Your task to perform on an android device: Show me popular games on the Play Store Image 0: 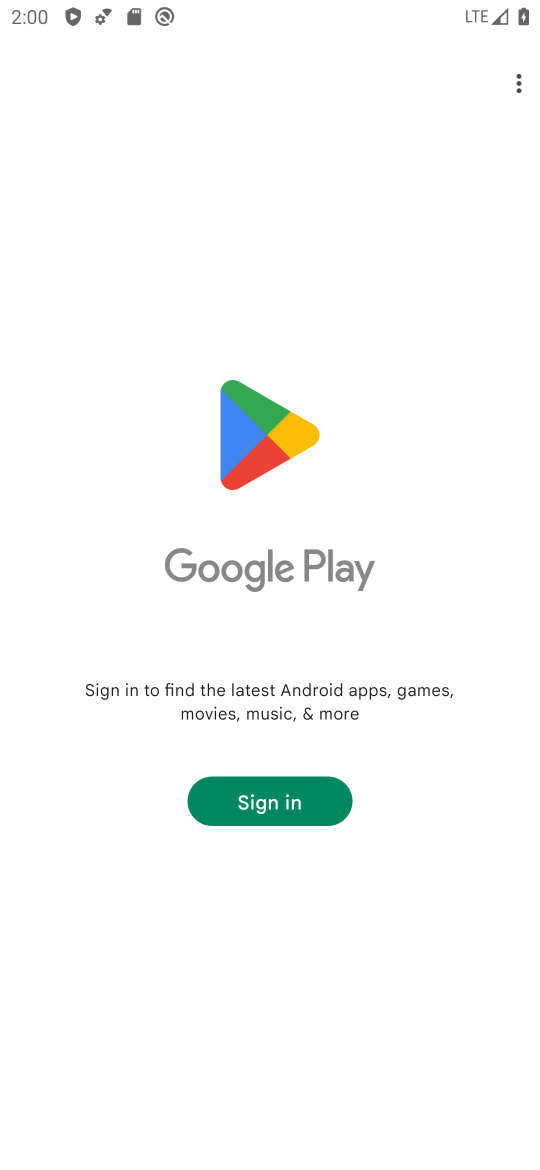
Step 0: press home button
Your task to perform on an android device: Show me popular games on the Play Store Image 1: 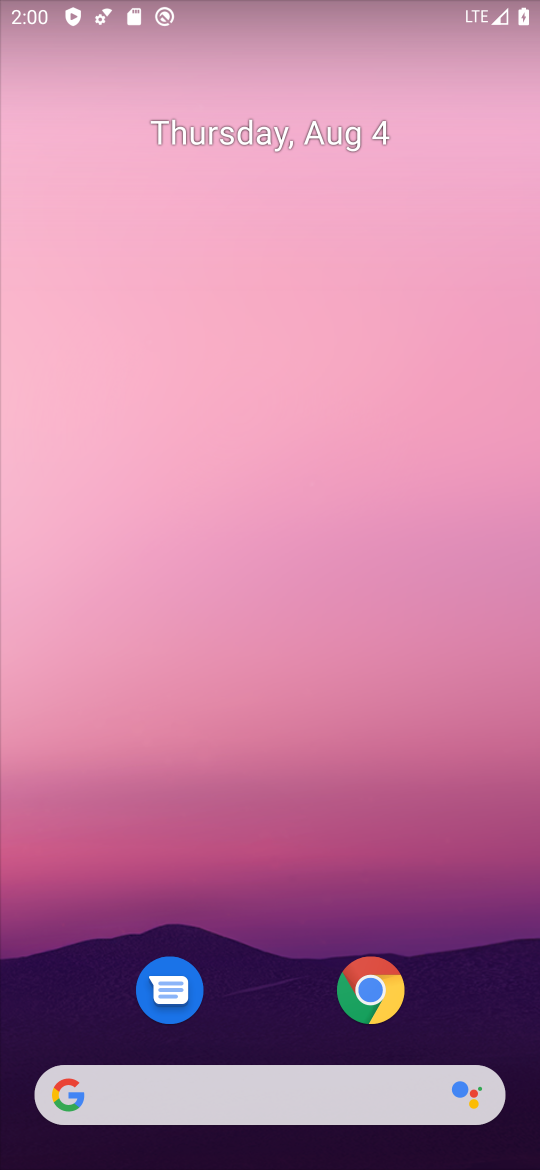
Step 1: drag from (423, 1076) to (359, 620)
Your task to perform on an android device: Show me popular games on the Play Store Image 2: 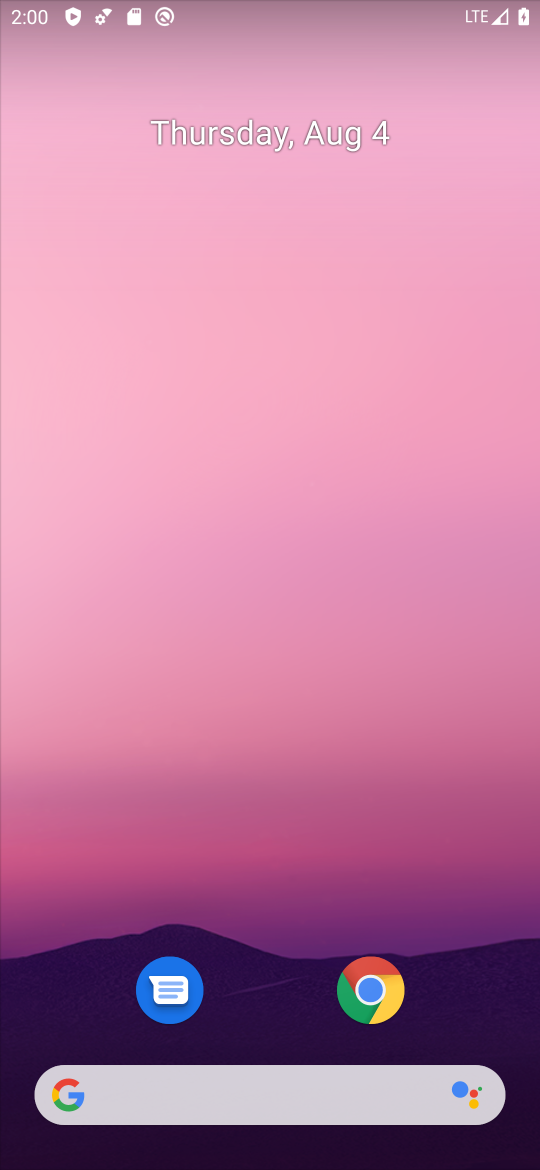
Step 2: drag from (310, 1028) to (303, 190)
Your task to perform on an android device: Show me popular games on the Play Store Image 3: 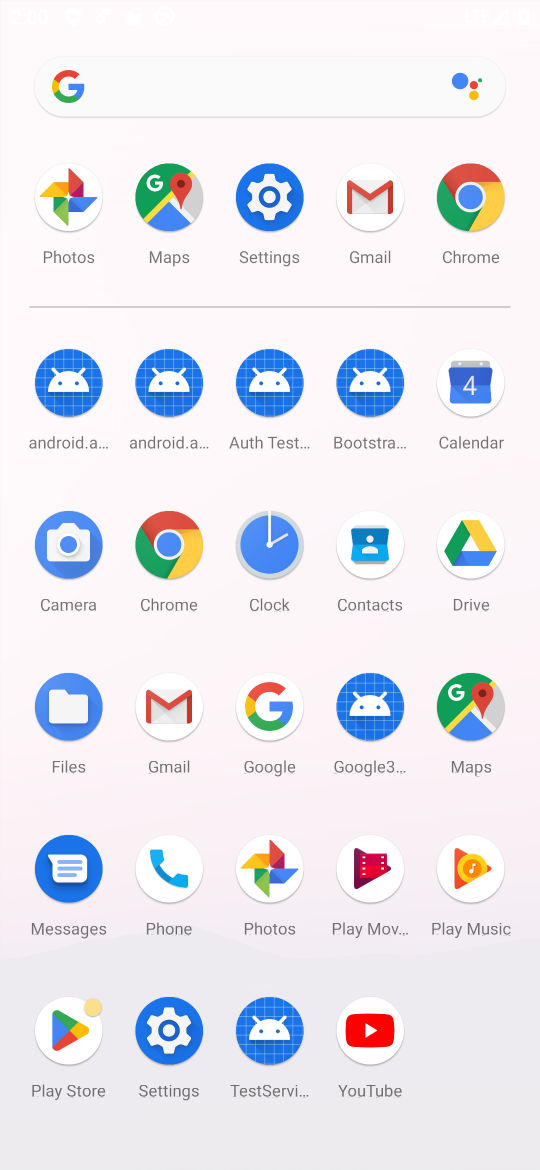
Step 3: click (303, 190)
Your task to perform on an android device: Show me popular games on the Play Store Image 4: 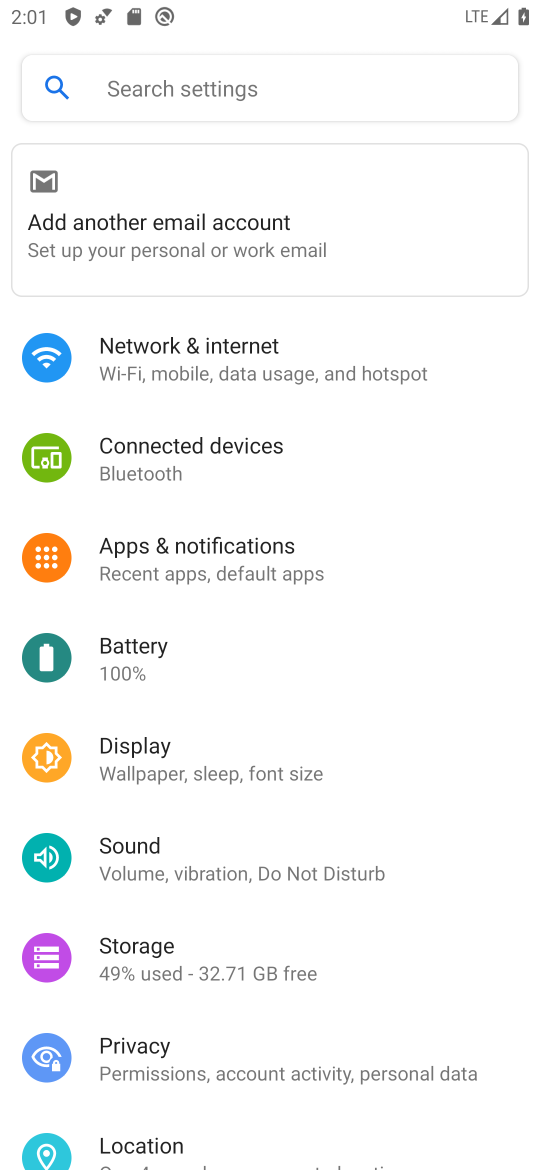
Step 4: click (210, 360)
Your task to perform on an android device: Show me popular games on the Play Store Image 5: 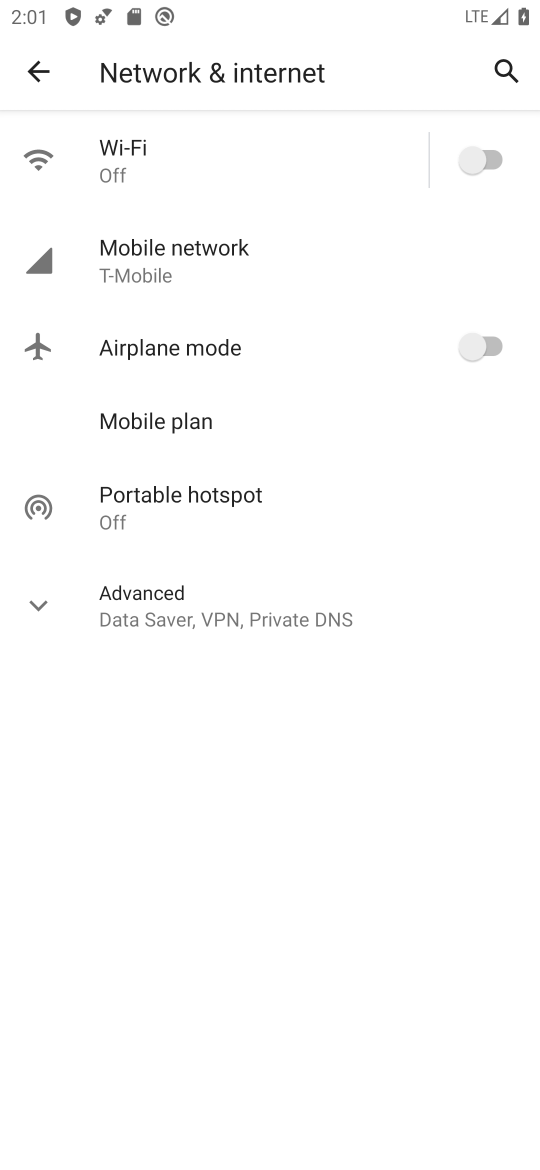
Step 5: click (210, 360)
Your task to perform on an android device: Show me popular games on the Play Store Image 6: 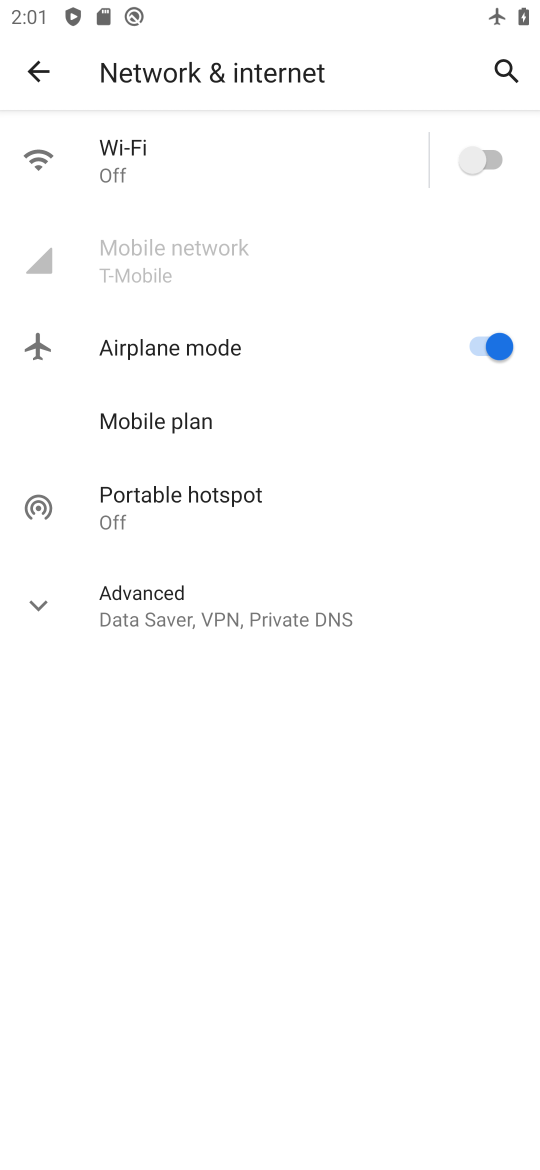
Step 6: task complete